Your task to perform on an android device: change notification settings in the gmail app Image 0: 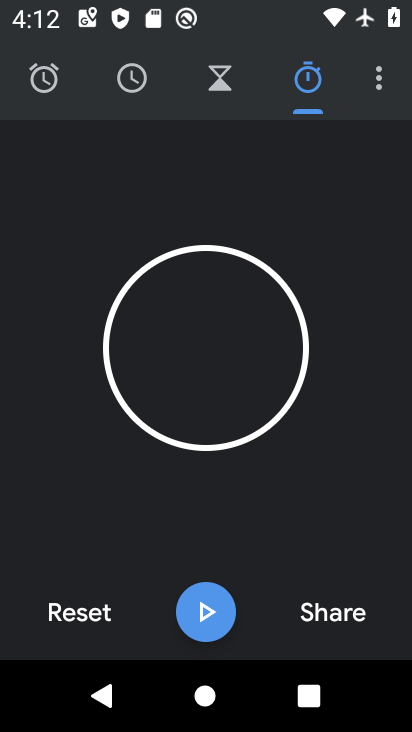
Step 0: press home button
Your task to perform on an android device: change notification settings in the gmail app Image 1: 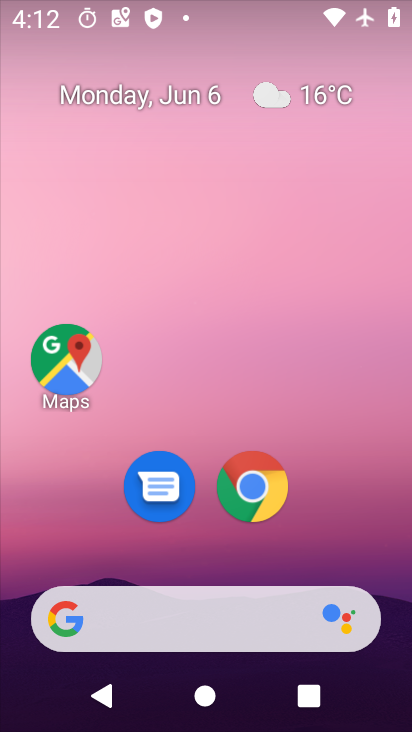
Step 1: drag from (355, 490) to (355, 95)
Your task to perform on an android device: change notification settings in the gmail app Image 2: 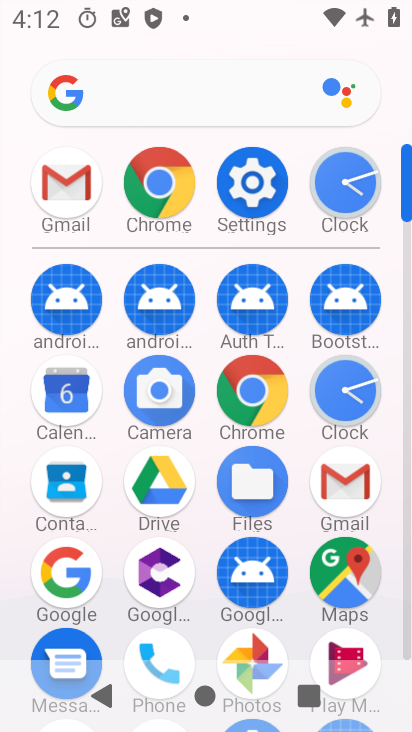
Step 2: click (75, 187)
Your task to perform on an android device: change notification settings in the gmail app Image 3: 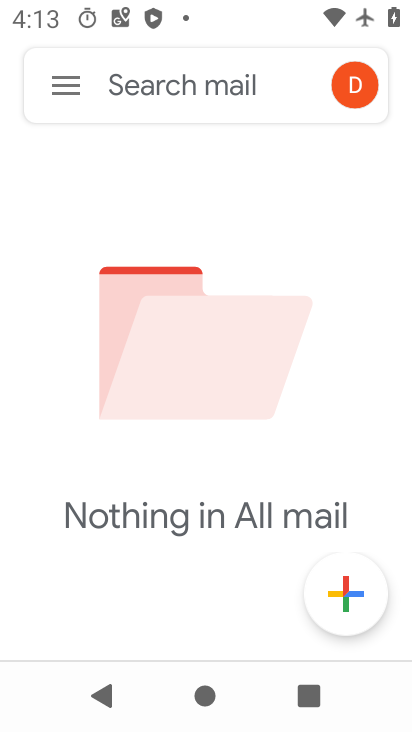
Step 3: click (55, 71)
Your task to perform on an android device: change notification settings in the gmail app Image 4: 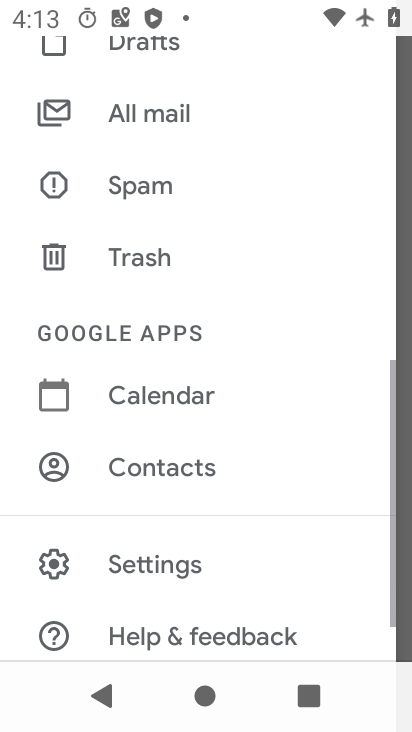
Step 4: click (166, 573)
Your task to perform on an android device: change notification settings in the gmail app Image 5: 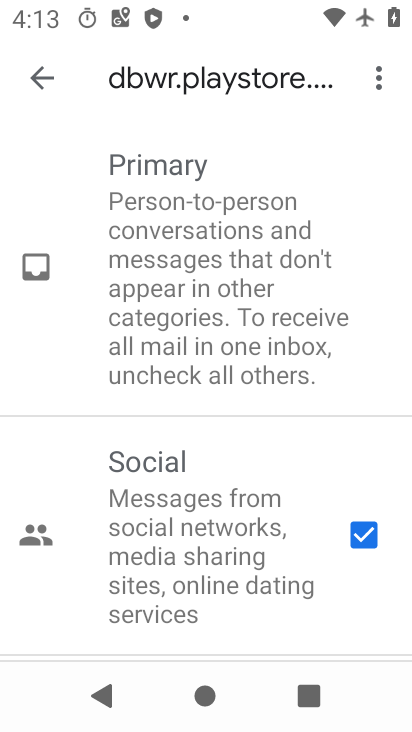
Step 5: click (34, 67)
Your task to perform on an android device: change notification settings in the gmail app Image 6: 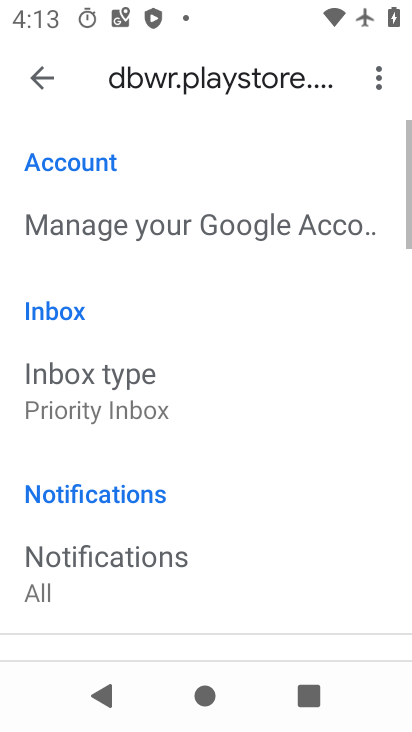
Step 6: drag from (200, 218) to (183, 634)
Your task to perform on an android device: change notification settings in the gmail app Image 7: 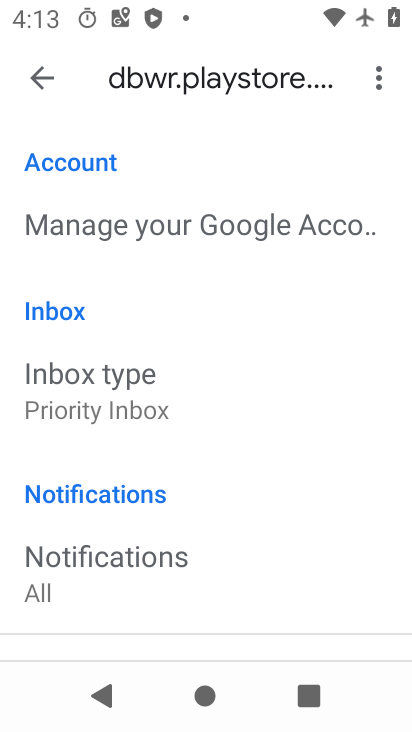
Step 7: drag from (209, 515) to (279, 240)
Your task to perform on an android device: change notification settings in the gmail app Image 8: 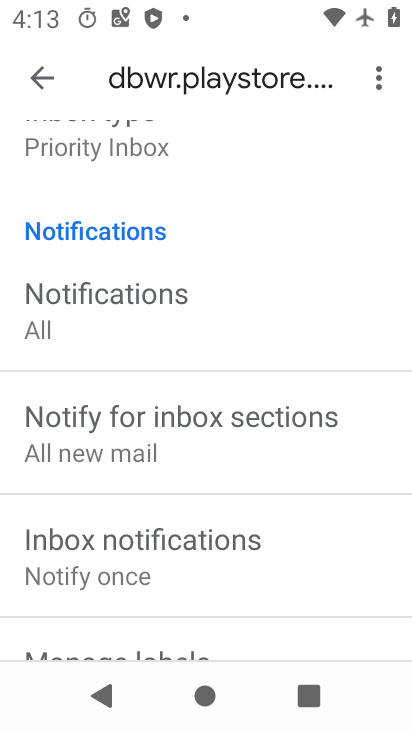
Step 8: drag from (198, 568) to (333, 146)
Your task to perform on an android device: change notification settings in the gmail app Image 9: 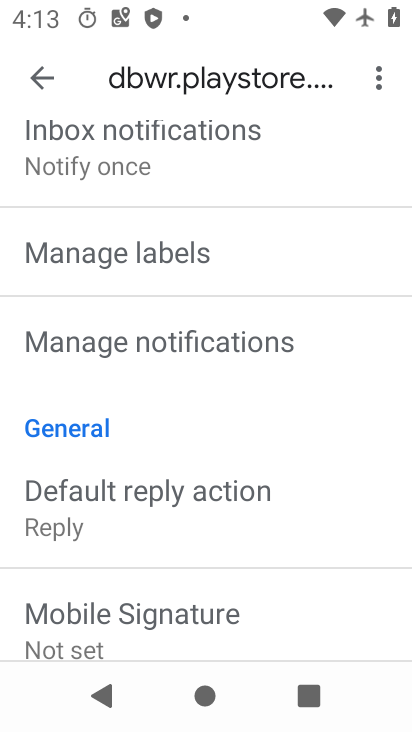
Step 9: click (217, 350)
Your task to perform on an android device: change notification settings in the gmail app Image 10: 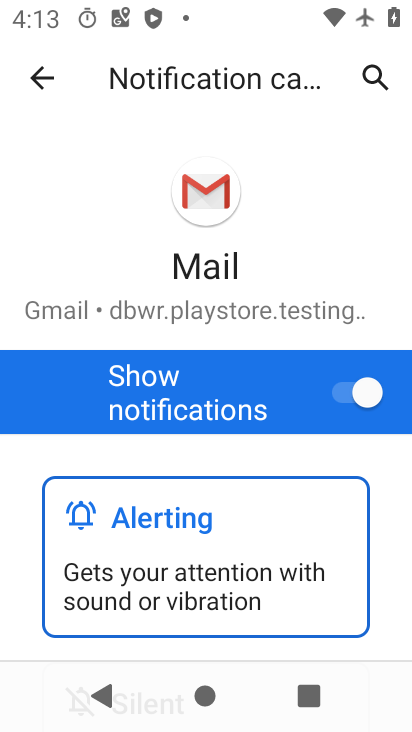
Step 10: click (305, 386)
Your task to perform on an android device: change notification settings in the gmail app Image 11: 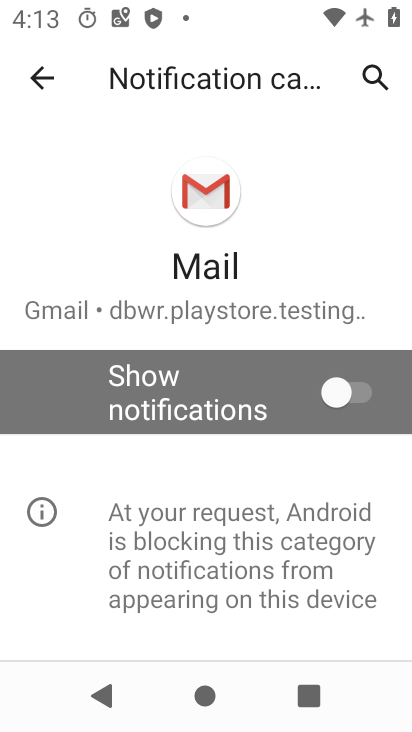
Step 11: task complete